Your task to perform on an android device: Go to Android settings Image 0: 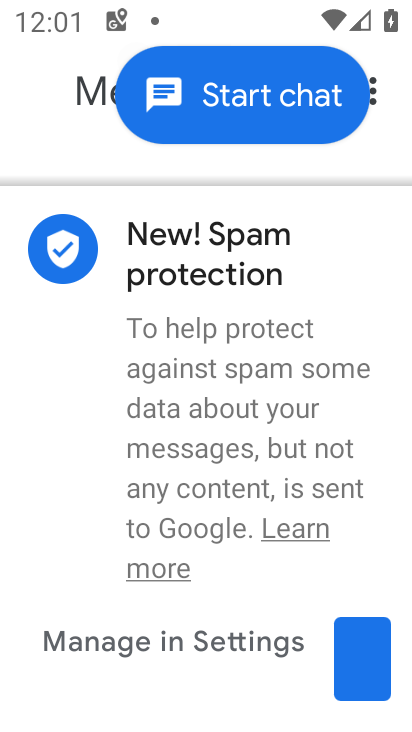
Step 0: press home button
Your task to perform on an android device: Go to Android settings Image 1: 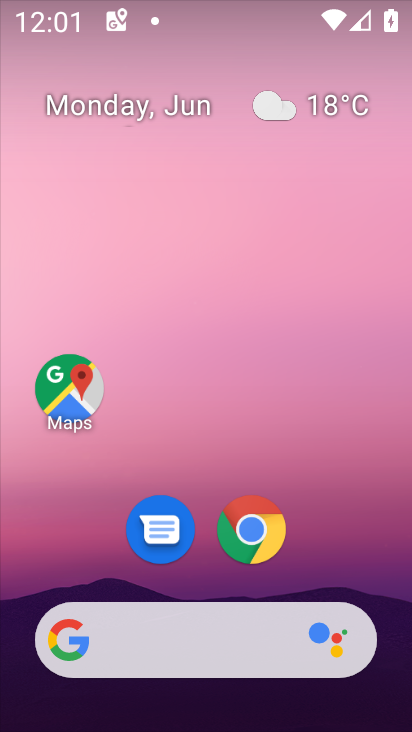
Step 1: drag from (374, 440) to (350, 16)
Your task to perform on an android device: Go to Android settings Image 2: 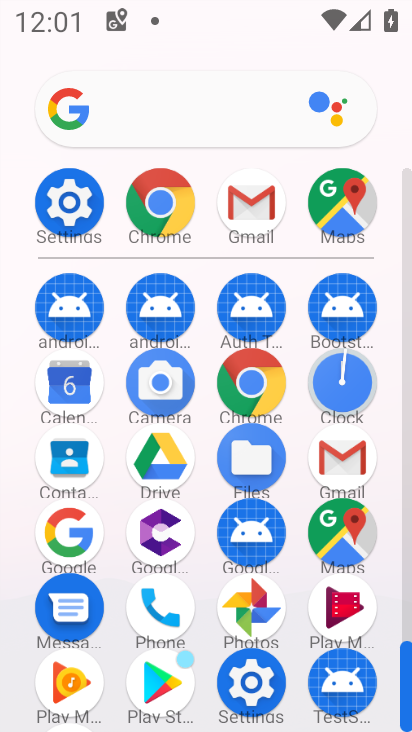
Step 2: click (74, 212)
Your task to perform on an android device: Go to Android settings Image 3: 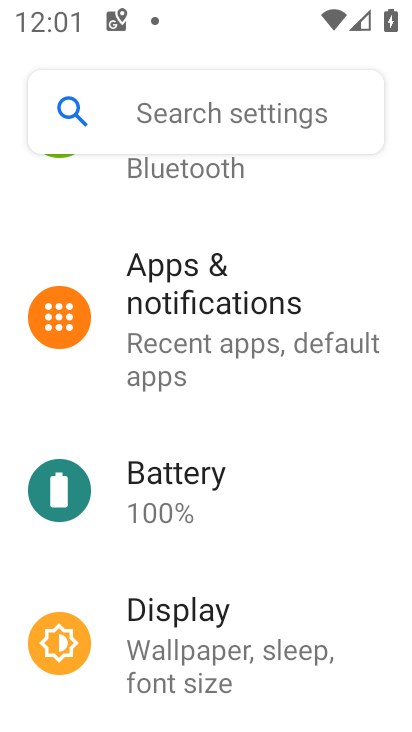
Step 3: task complete